Your task to perform on an android device: Open Youtube and go to "Your channel" Image 0: 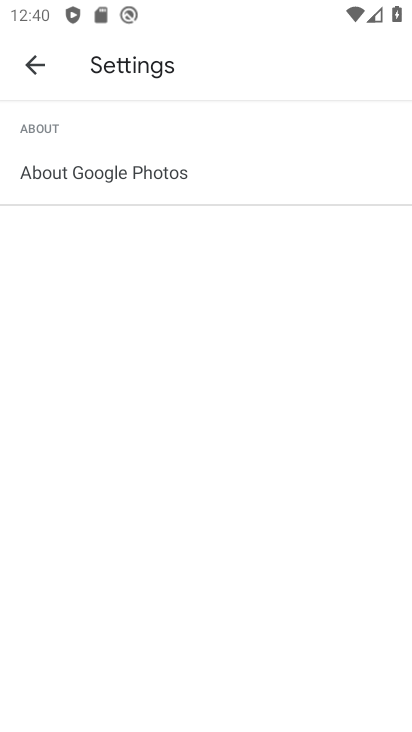
Step 0: click (377, 424)
Your task to perform on an android device: Open Youtube and go to "Your channel" Image 1: 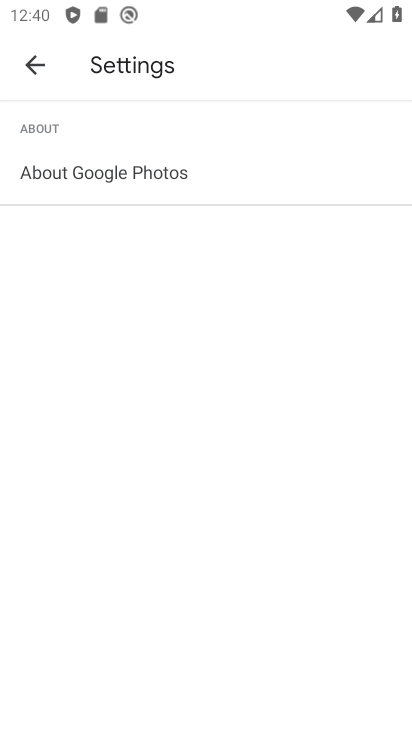
Step 1: press home button
Your task to perform on an android device: Open Youtube and go to "Your channel" Image 2: 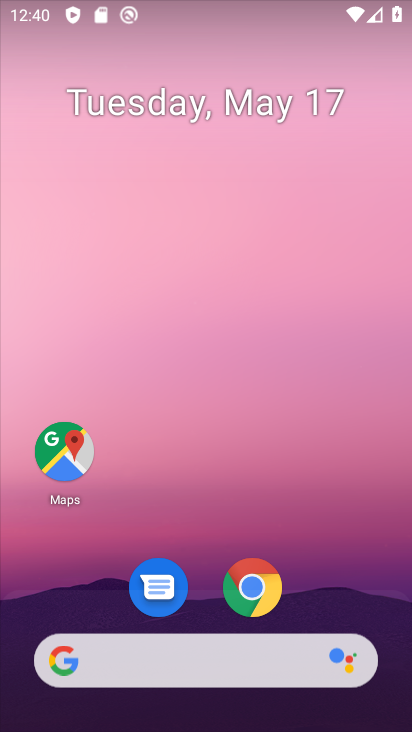
Step 2: drag from (227, 631) to (353, 89)
Your task to perform on an android device: Open Youtube and go to "Your channel" Image 3: 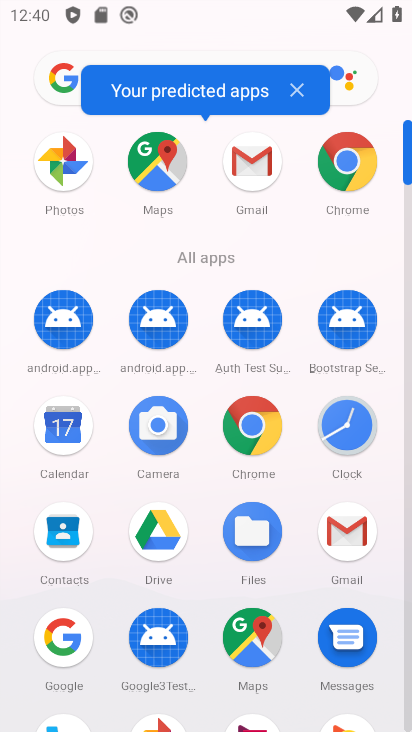
Step 3: drag from (271, 635) to (318, 422)
Your task to perform on an android device: Open Youtube and go to "Your channel" Image 4: 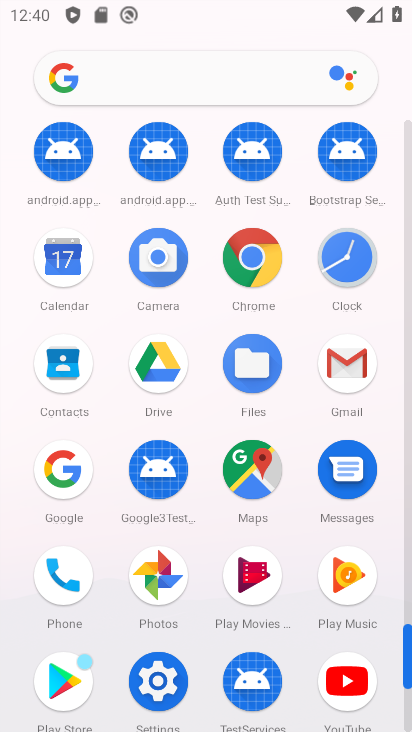
Step 4: click (356, 684)
Your task to perform on an android device: Open Youtube and go to "Your channel" Image 5: 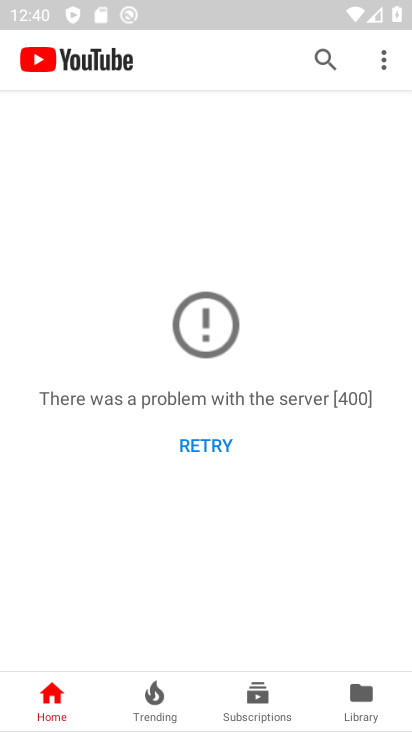
Step 5: task complete